Your task to perform on an android device: Open maps Image 0: 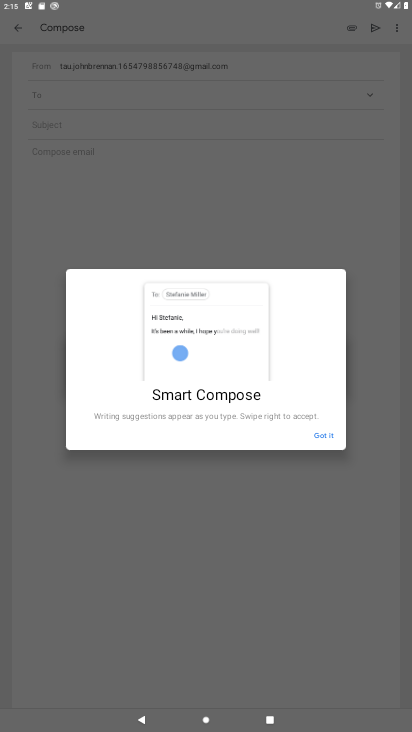
Step 0: press home button
Your task to perform on an android device: Open maps Image 1: 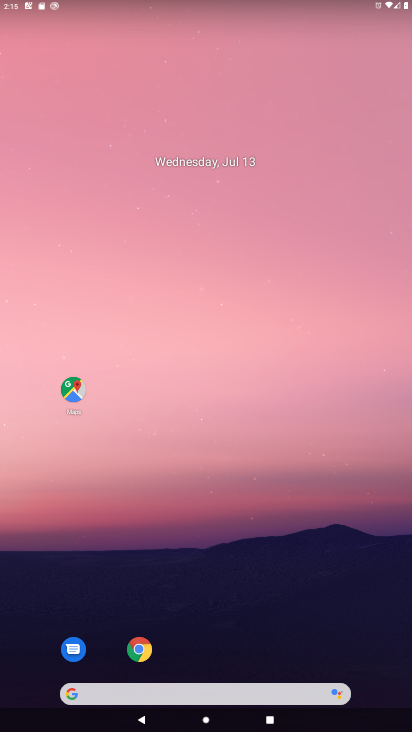
Step 1: click (88, 379)
Your task to perform on an android device: Open maps Image 2: 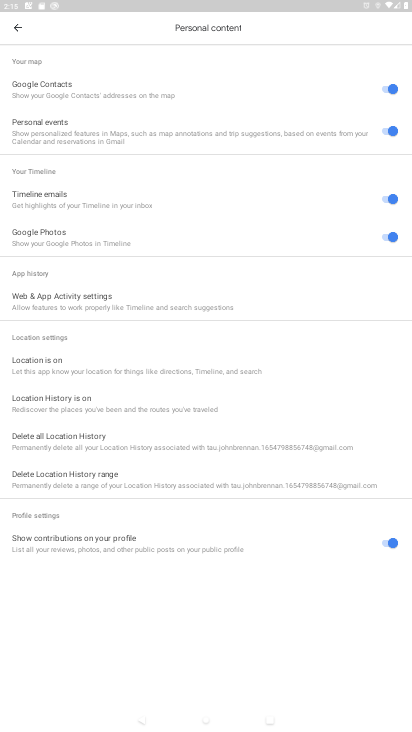
Step 2: task complete